Your task to perform on an android device: Check the news Image 0: 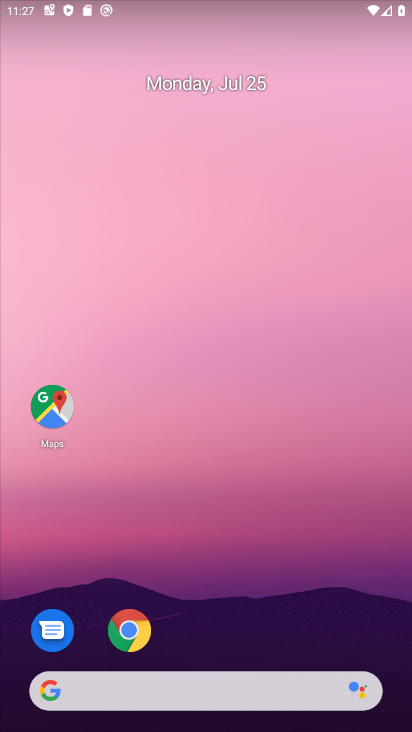
Step 0: press home button
Your task to perform on an android device: Check the news Image 1: 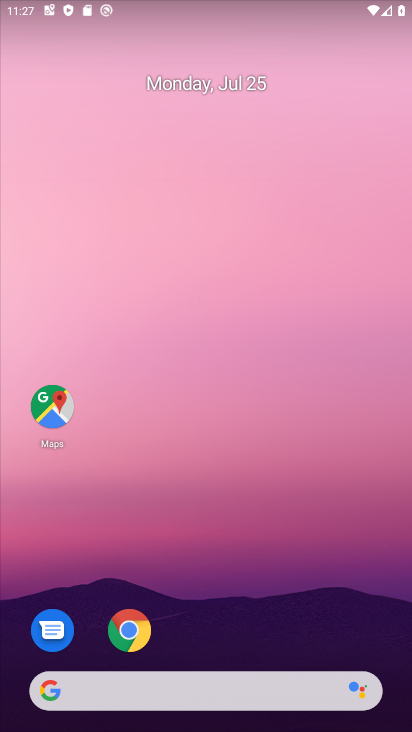
Step 1: task complete